Your task to perform on an android device: Go to eBay Image 0: 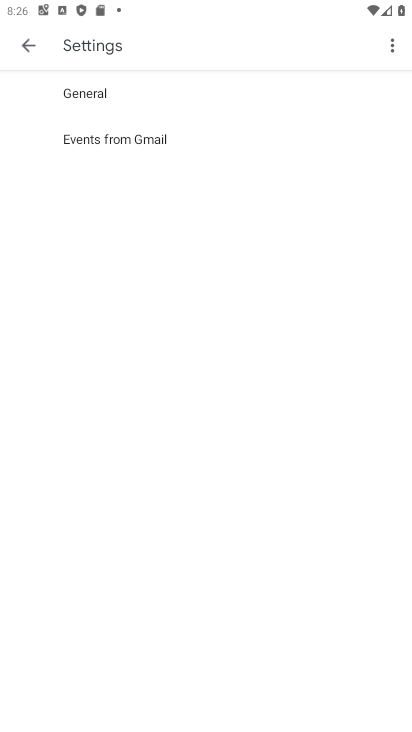
Step 0: press home button
Your task to perform on an android device: Go to eBay Image 1: 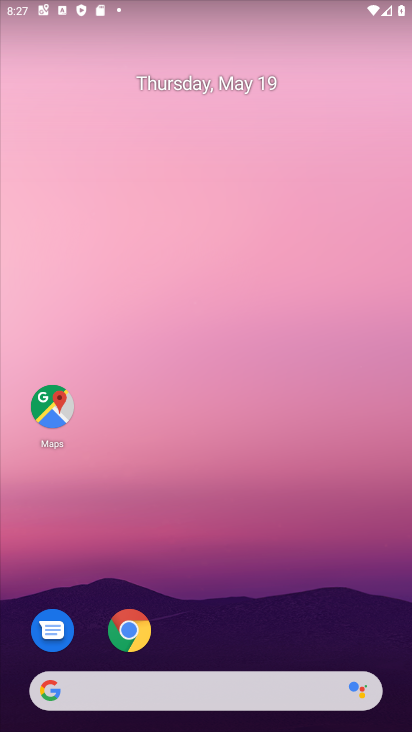
Step 1: click (129, 633)
Your task to perform on an android device: Go to eBay Image 2: 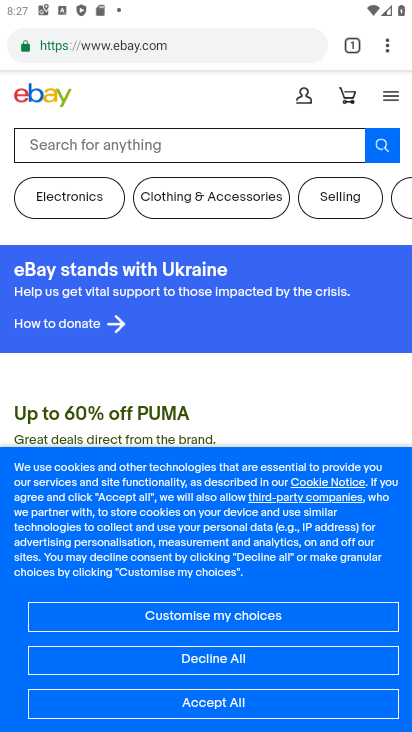
Step 2: task complete